Your task to perform on an android device: change notifications settings Image 0: 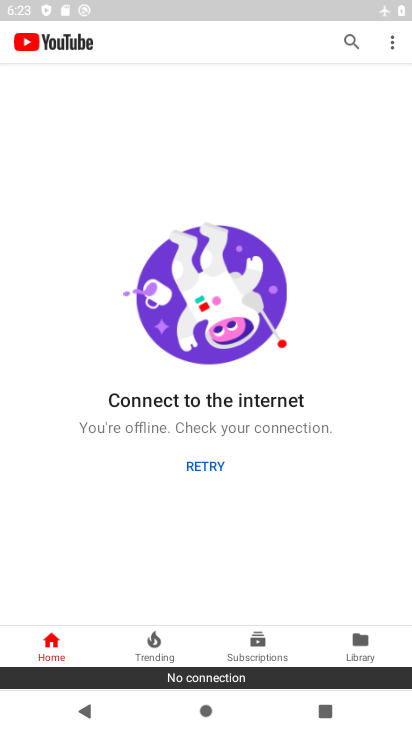
Step 0: press home button
Your task to perform on an android device: change notifications settings Image 1: 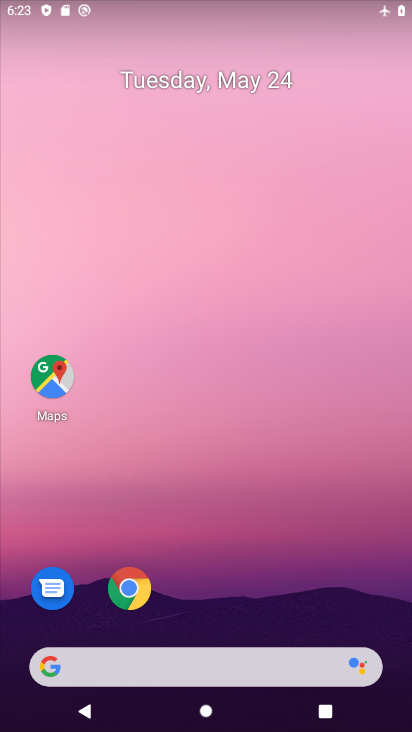
Step 1: drag from (226, 646) to (357, 58)
Your task to perform on an android device: change notifications settings Image 2: 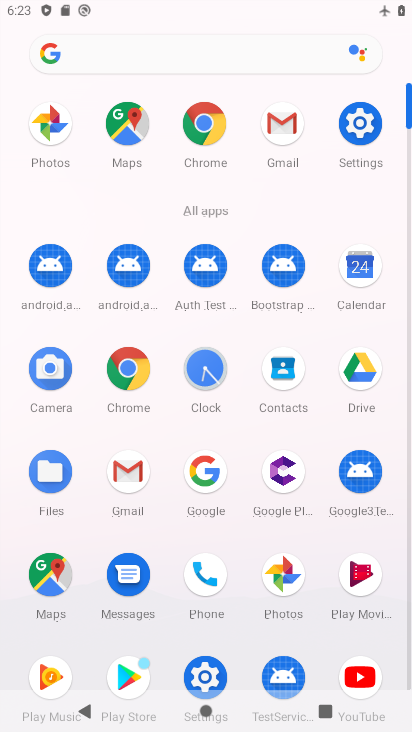
Step 2: click (365, 121)
Your task to perform on an android device: change notifications settings Image 3: 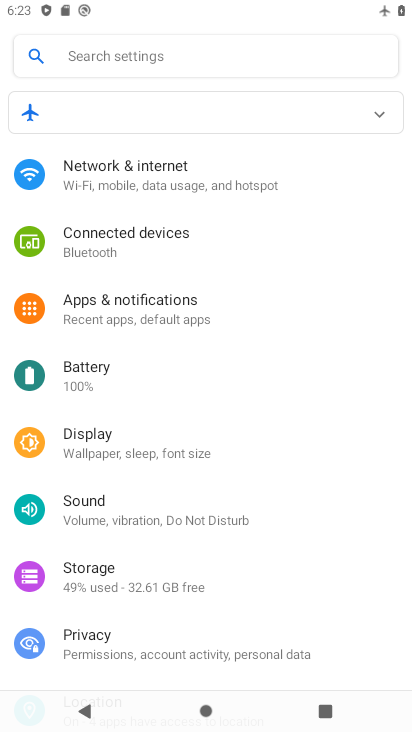
Step 3: click (146, 314)
Your task to perform on an android device: change notifications settings Image 4: 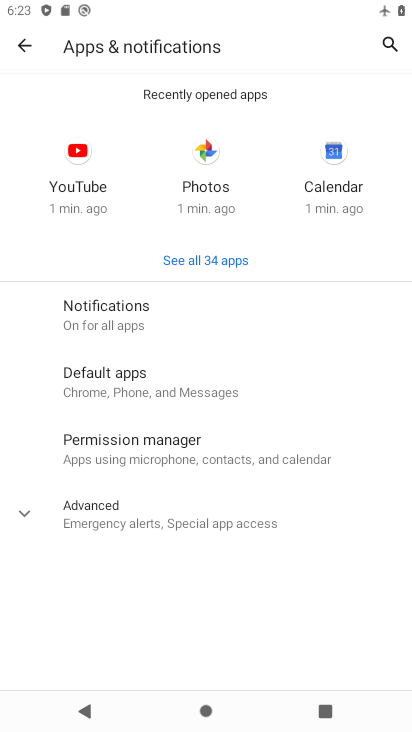
Step 4: click (184, 316)
Your task to perform on an android device: change notifications settings Image 5: 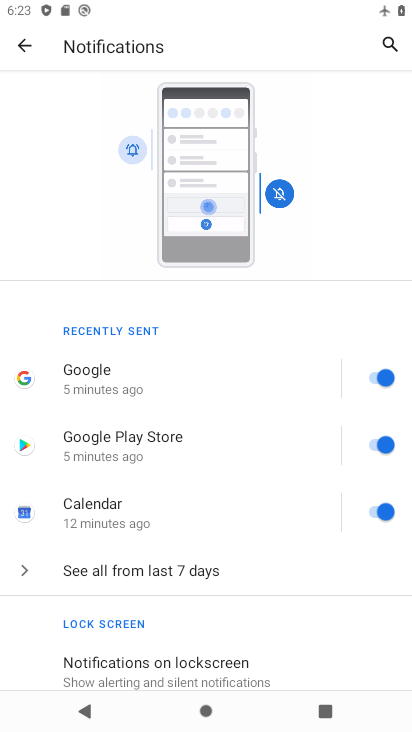
Step 5: task complete